Your task to perform on an android device: Open sound settings Image 0: 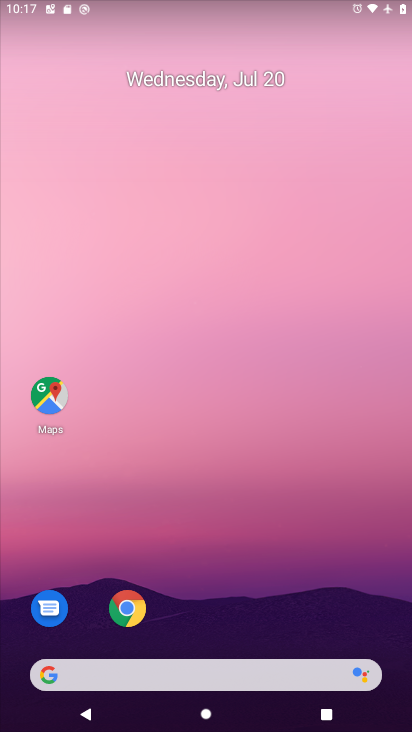
Step 0: drag from (238, 591) to (244, 194)
Your task to perform on an android device: Open sound settings Image 1: 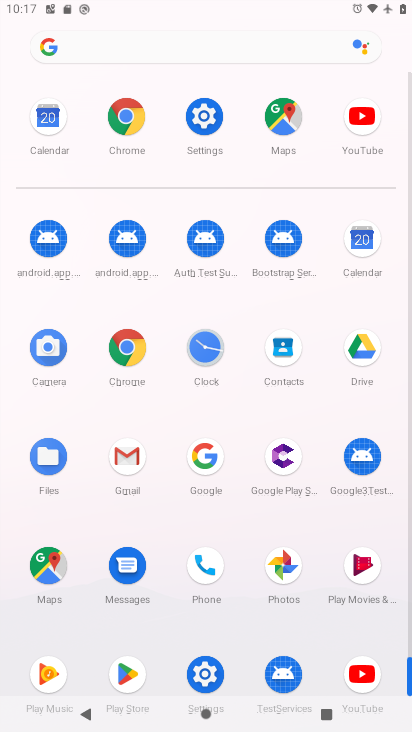
Step 1: click (190, 120)
Your task to perform on an android device: Open sound settings Image 2: 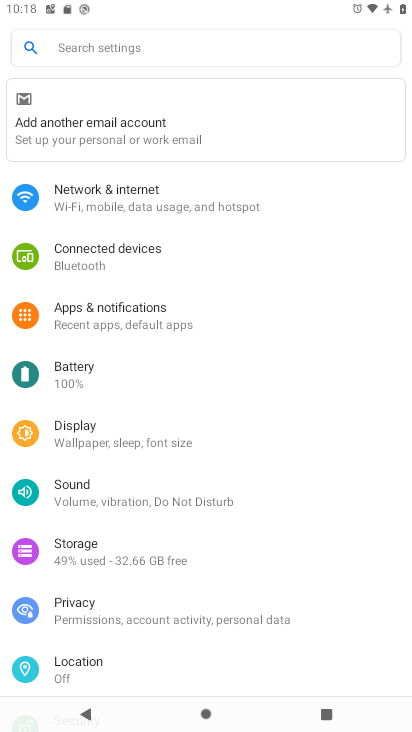
Step 2: click (159, 477)
Your task to perform on an android device: Open sound settings Image 3: 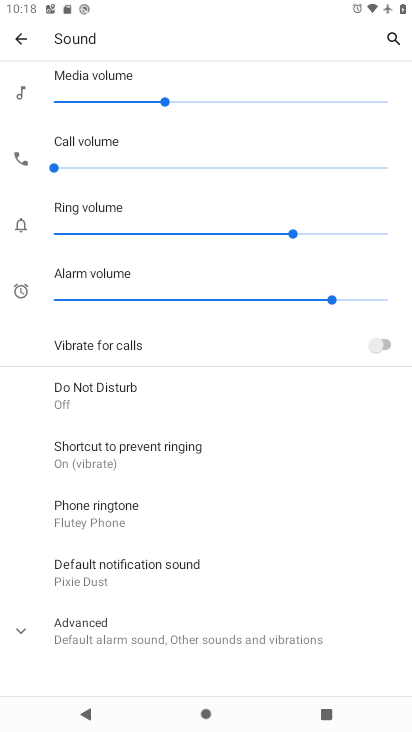
Step 3: task complete